Your task to perform on an android device: Open the map Image 0: 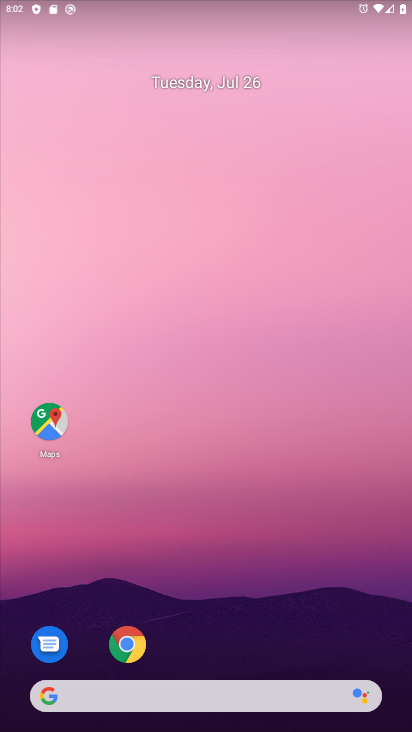
Step 0: click (38, 435)
Your task to perform on an android device: Open the map Image 1: 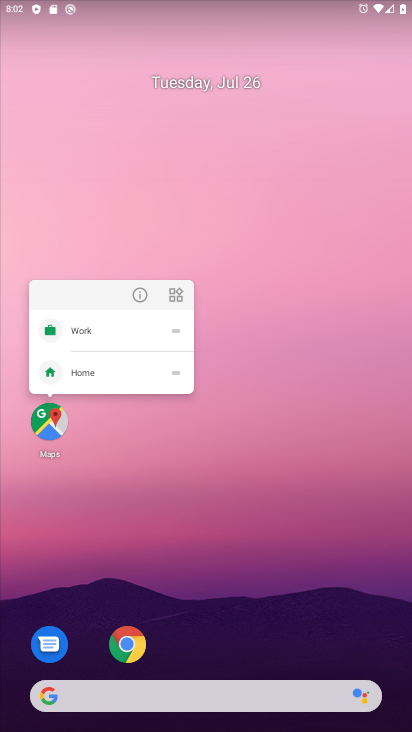
Step 1: click (57, 417)
Your task to perform on an android device: Open the map Image 2: 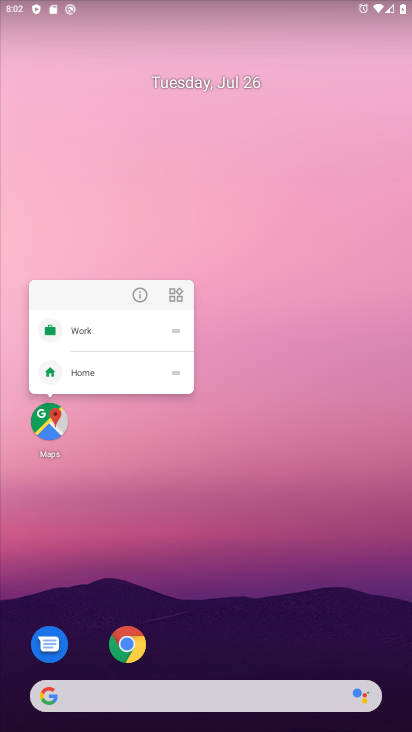
Step 2: click (55, 417)
Your task to perform on an android device: Open the map Image 3: 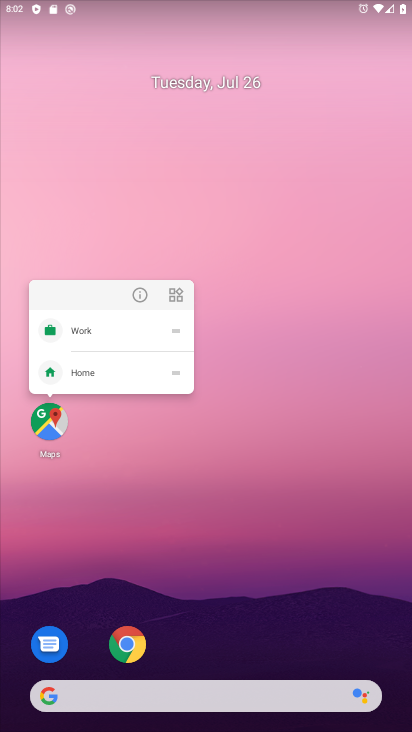
Step 3: click (59, 417)
Your task to perform on an android device: Open the map Image 4: 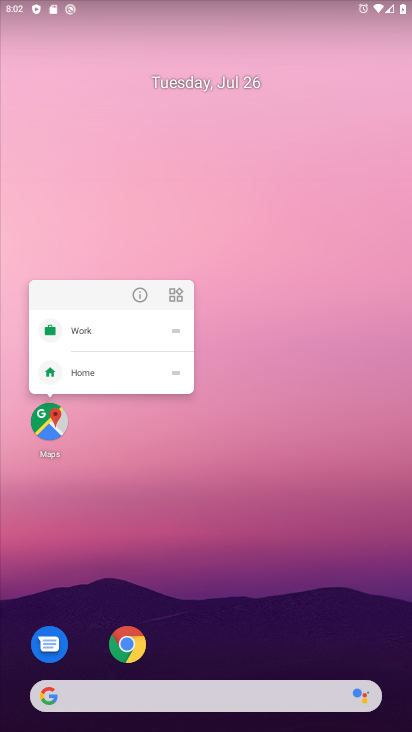
Step 4: click (48, 429)
Your task to perform on an android device: Open the map Image 5: 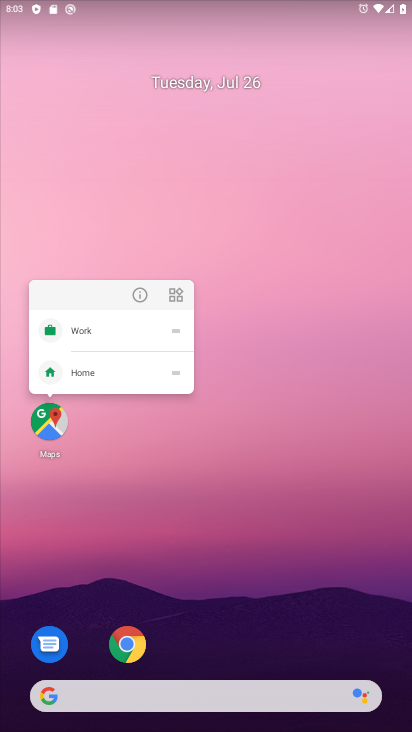
Step 5: click (48, 429)
Your task to perform on an android device: Open the map Image 6: 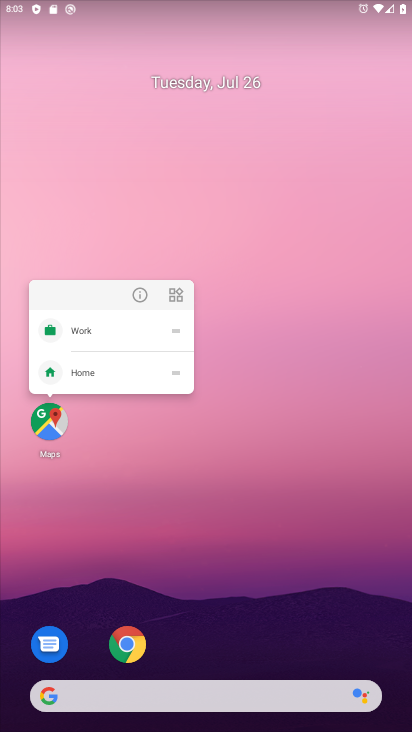
Step 6: click (48, 429)
Your task to perform on an android device: Open the map Image 7: 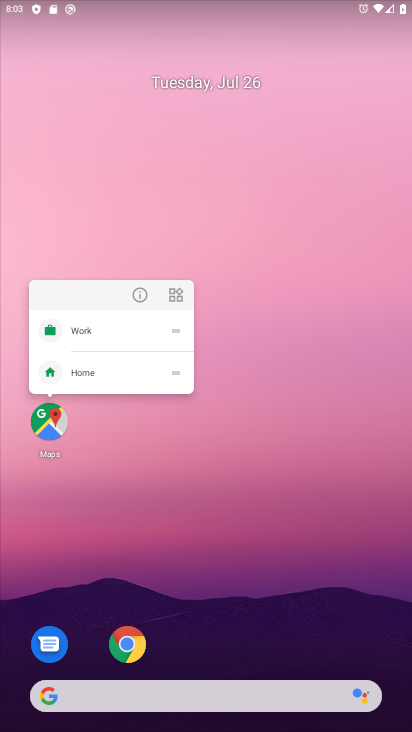
Step 7: click (48, 429)
Your task to perform on an android device: Open the map Image 8: 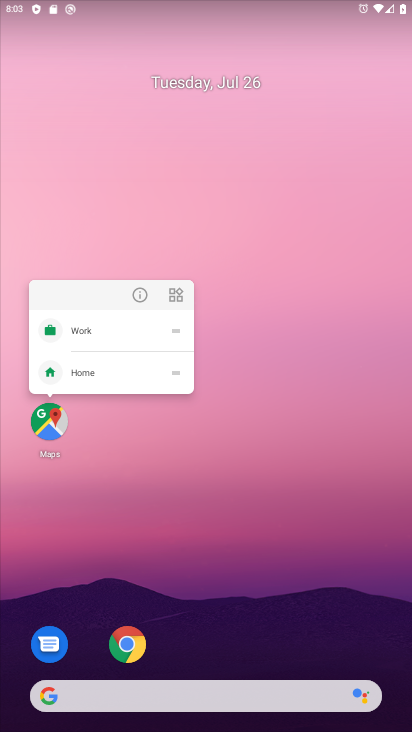
Step 8: click (48, 429)
Your task to perform on an android device: Open the map Image 9: 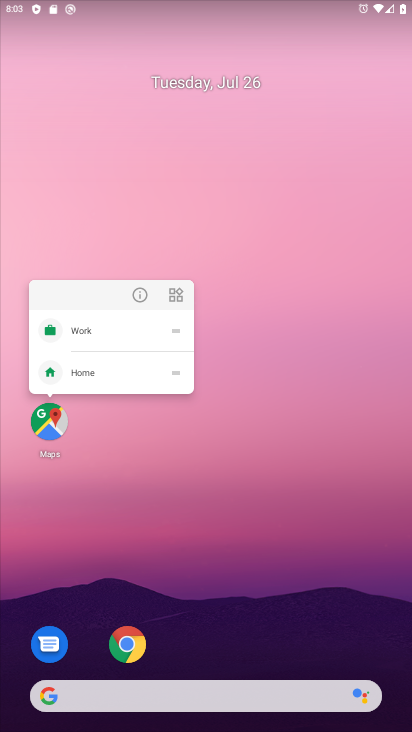
Step 9: click (48, 429)
Your task to perform on an android device: Open the map Image 10: 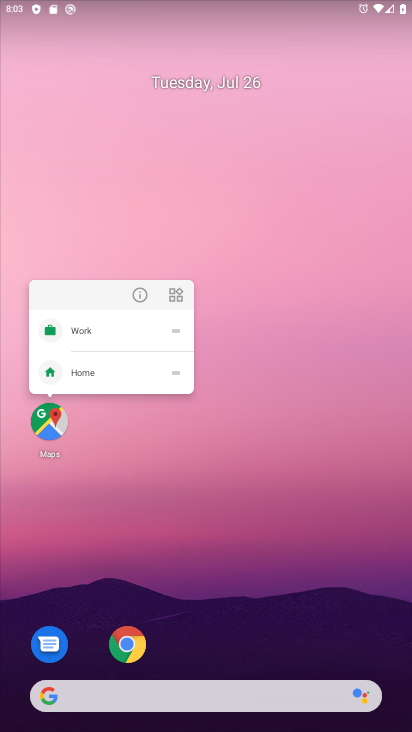
Step 10: drag from (215, 625) to (217, 220)
Your task to perform on an android device: Open the map Image 11: 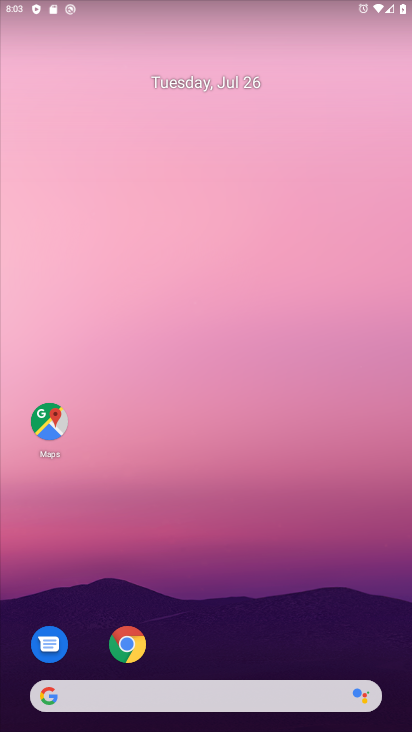
Step 11: drag from (201, 690) to (181, 221)
Your task to perform on an android device: Open the map Image 12: 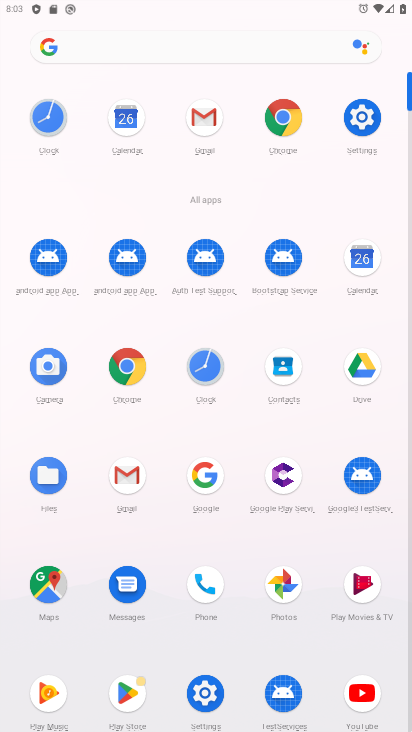
Step 12: click (52, 584)
Your task to perform on an android device: Open the map Image 13: 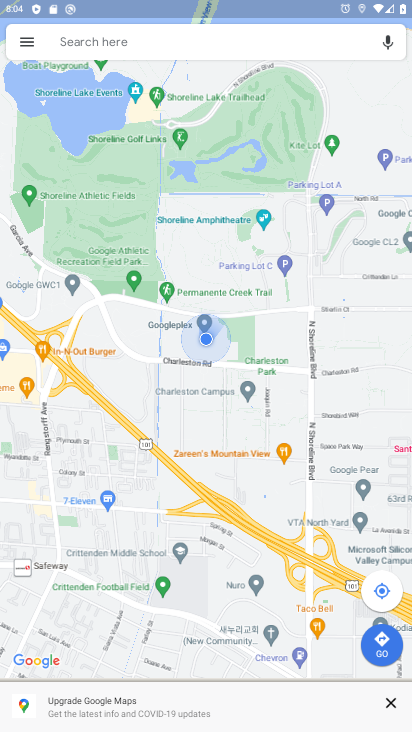
Step 13: task complete